Your task to perform on an android device: Open Yahoo.com Image 0: 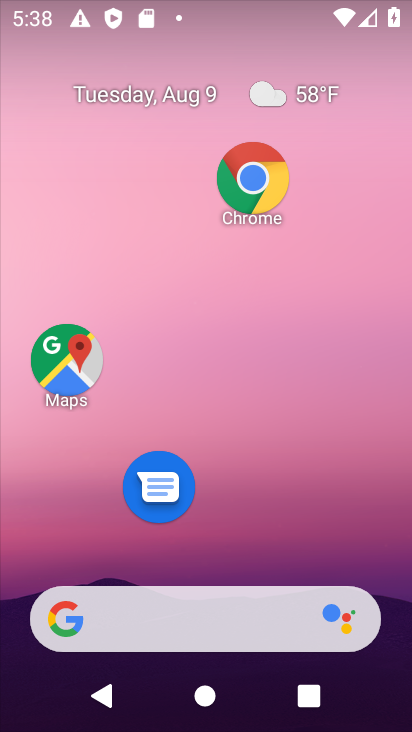
Step 0: click (261, 176)
Your task to perform on an android device: Open Yahoo.com Image 1: 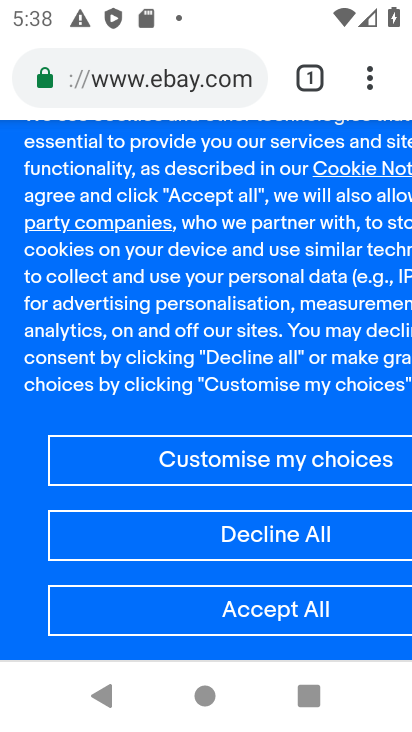
Step 1: click (306, 75)
Your task to perform on an android device: Open Yahoo.com Image 2: 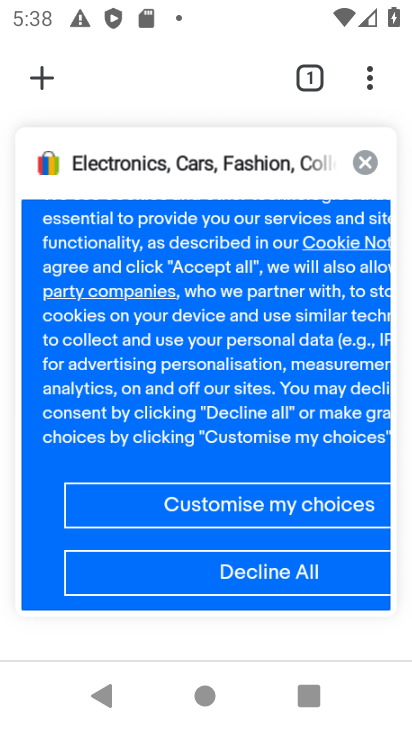
Step 2: click (39, 81)
Your task to perform on an android device: Open Yahoo.com Image 3: 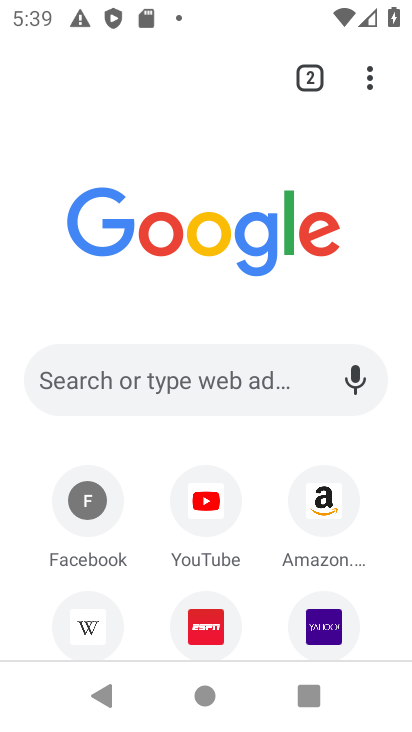
Step 3: drag from (34, 578) to (68, 420)
Your task to perform on an android device: Open Yahoo.com Image 4: 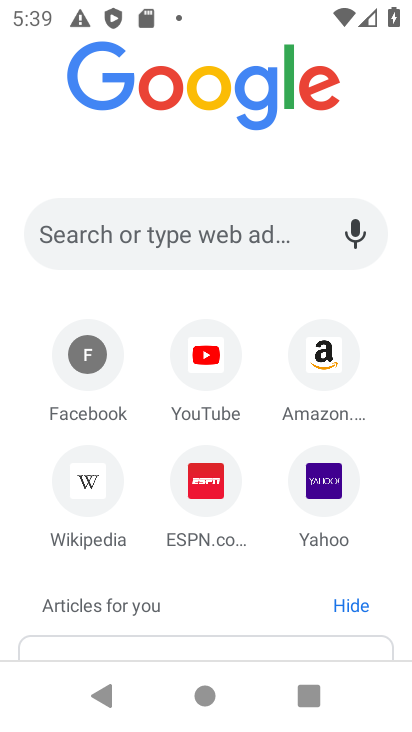
Step 4: click (334, 497)
Your task to perform on an android device: Open Yahoo.com Image 5: 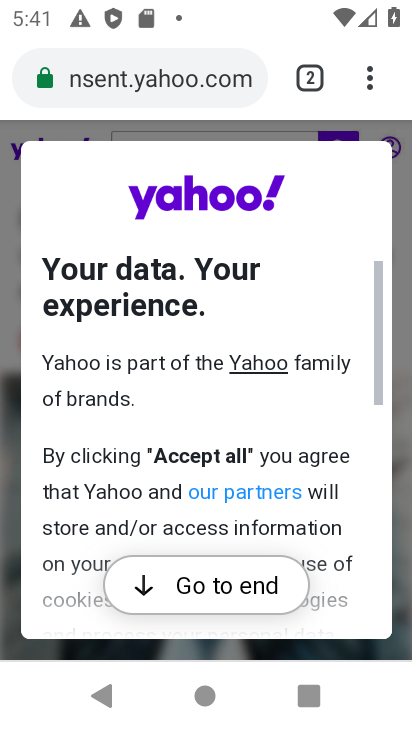
Step 5: task complete